Your task to perform on an android device: create a new album in the google photos Image 0: 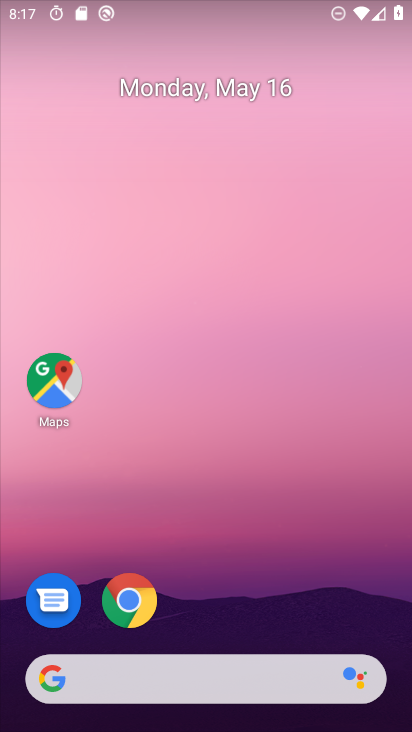
Step 0: drag from (150, 686) to (295, 152)
Your task to perform on an android device: create a new album in the google photos Image 1: 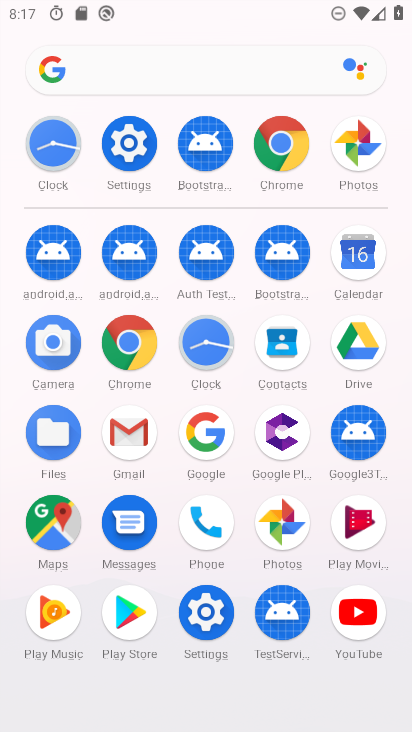
Step 1: click (354, 155)
Your task to perform on an android device: create a new album in the google photos Image 2: 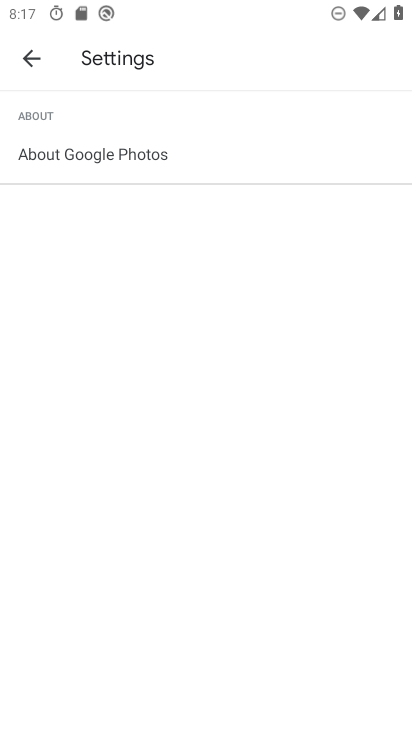
Step 2: click (28, 61)
Your task to perform on an android device: create a new album in the google photos Image 3: 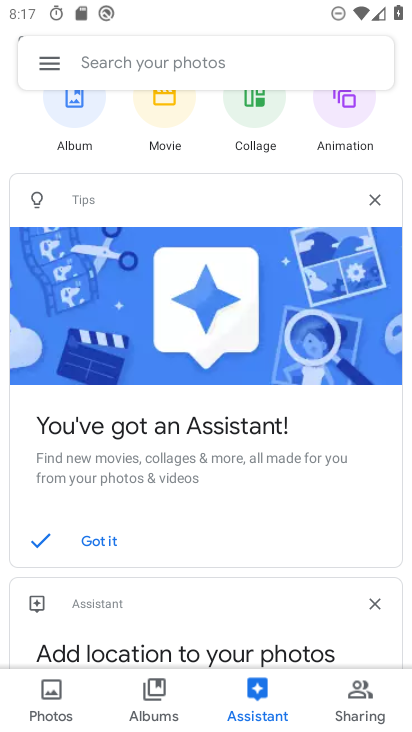
Step 3: click (147, 701)
Your task to perform on an android device: create a new album in the google photos Image 4: 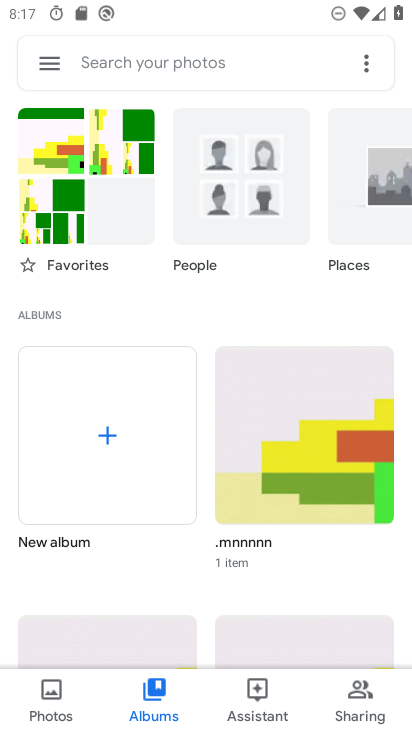
Step 4: click (103, 442)
Your task to perform on an android device: create a new album in the google photos Image 5: 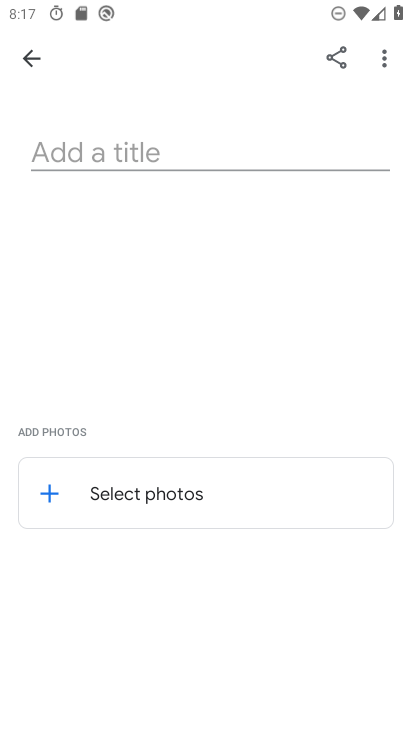
Step 5: click (144, 494)
Your task to perform on an android device: create a new album in the google photos Image 6: 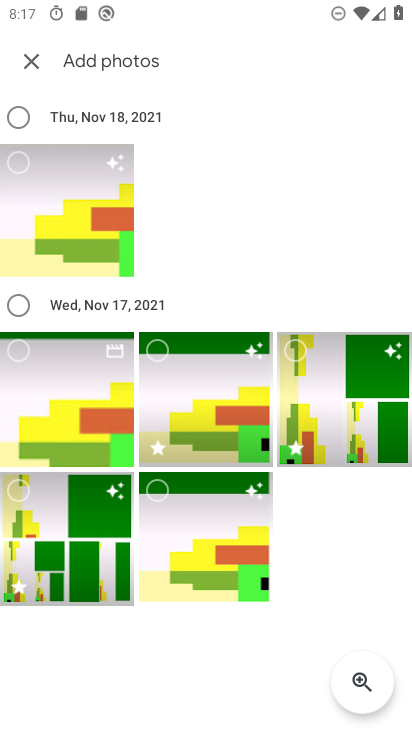
Step 6: click (167, 500)
Your task to perform on an android device: create a new album in the google photos Image 7: 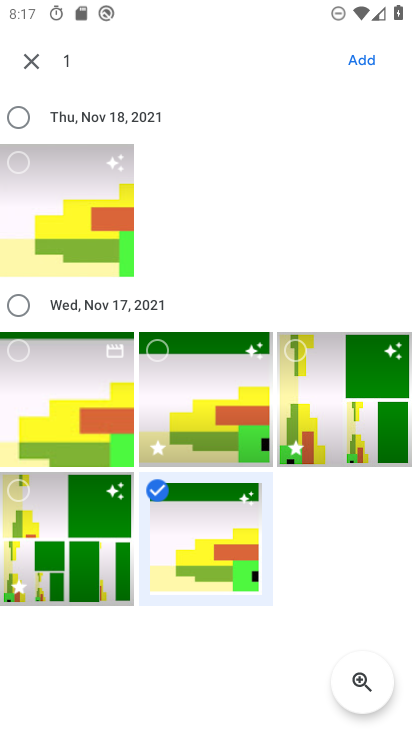
Step 7: click (74, 534)
Your task to perform on an android device: create a new album in the google photos Image 8: 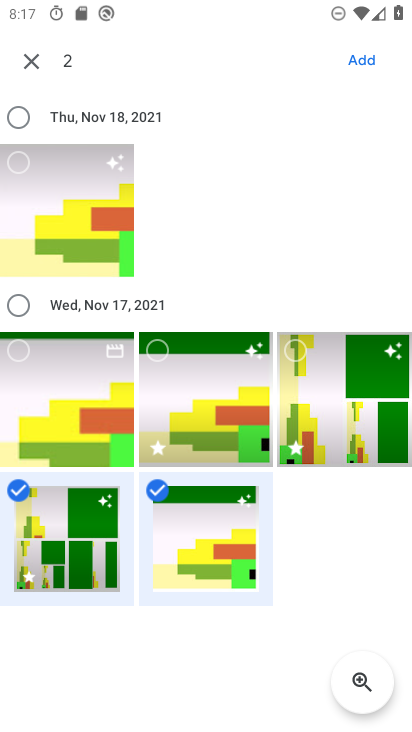
Step 8: click (366, 65)
Your task to perform on an android device: create a new album in the google photos Image 9: 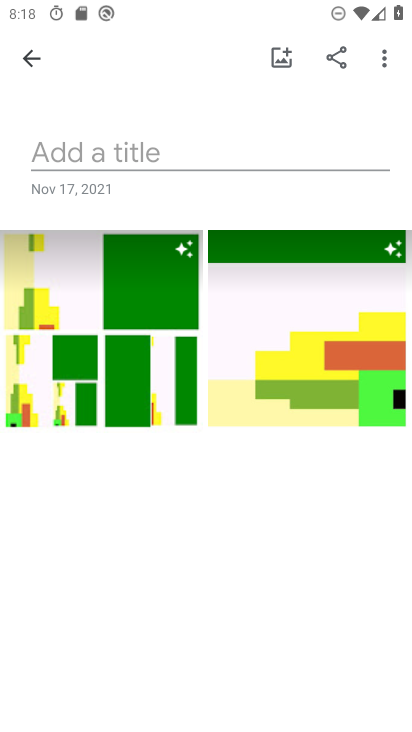
Step 9: task complete